Your task to perform on an android device: snooze an email in the gmail app Image 0: 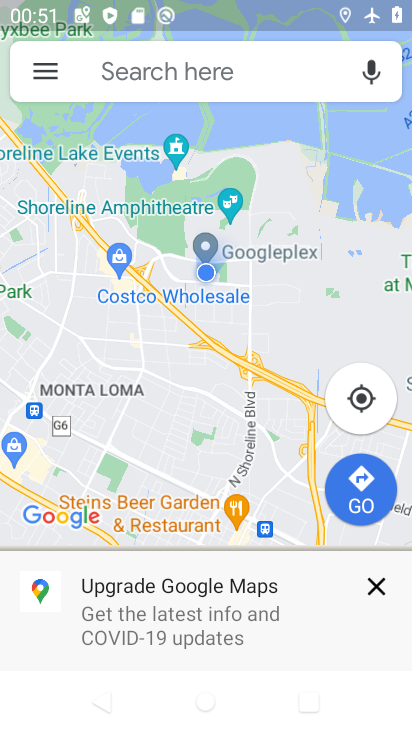
Step 0: press home button
Your task to perform on an android device: snooze an email in the gmail app Image 1: 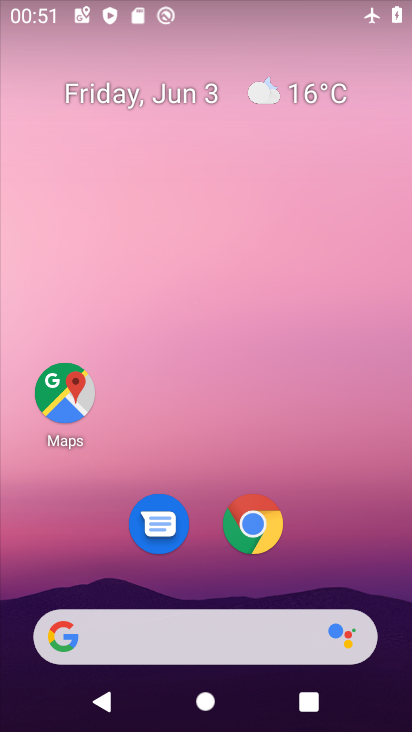
Step 1: drag from (204, 419) to (198, 5)
Your task to perform on an android device: snooze an email in the gmail app Image 2: 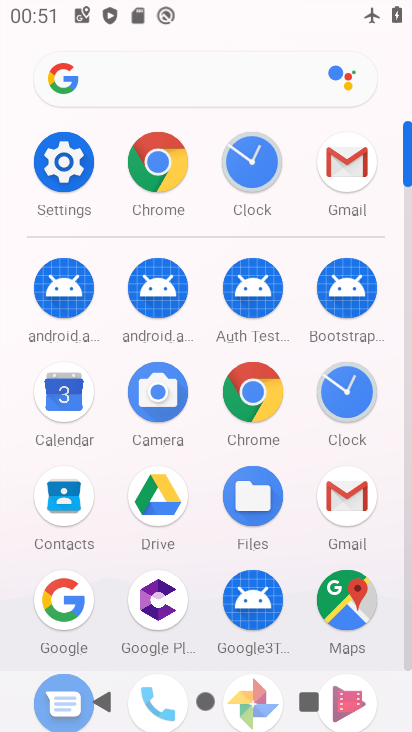
Step 2: click (345, 168)
Your task to perform on an android device: snooze an email in the gmail app Image 3: 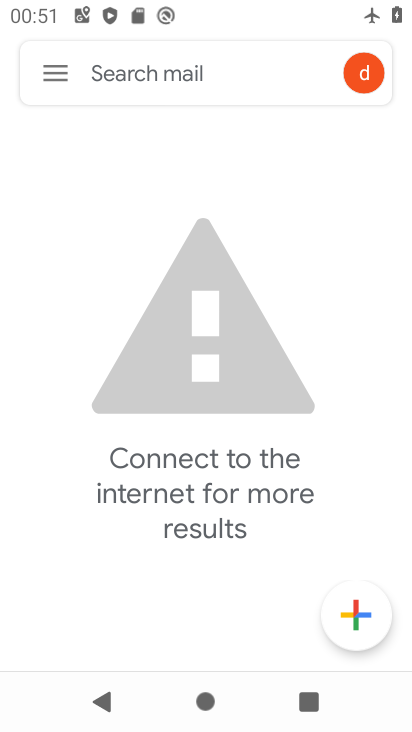
Step 3: task complete